Your task to perform on an android device: create a new album in the google photos Image 0: 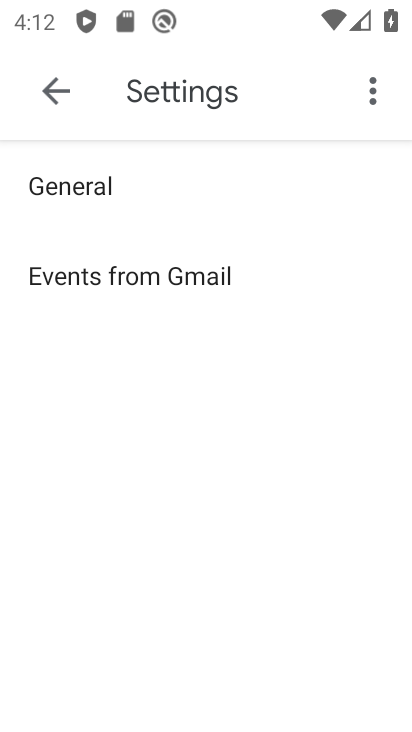
Step 0: press home button
Your task to perform on an android device: create a new album in the google photos Image 1: 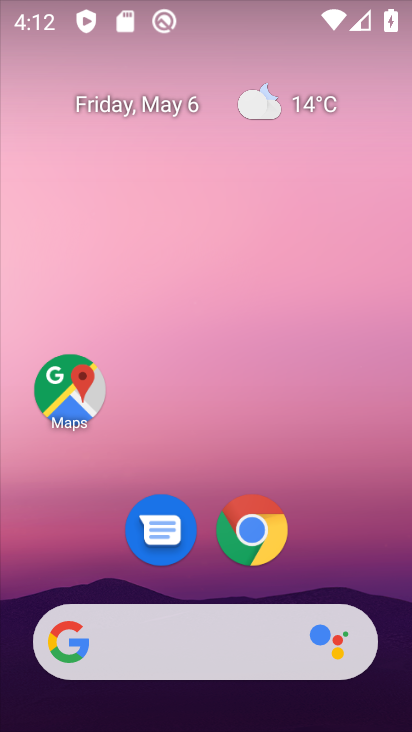
Step 1: drag from (345, 539) to (282, 223)
Your task to perform on an android device: create a new album in the google photos Image 2: 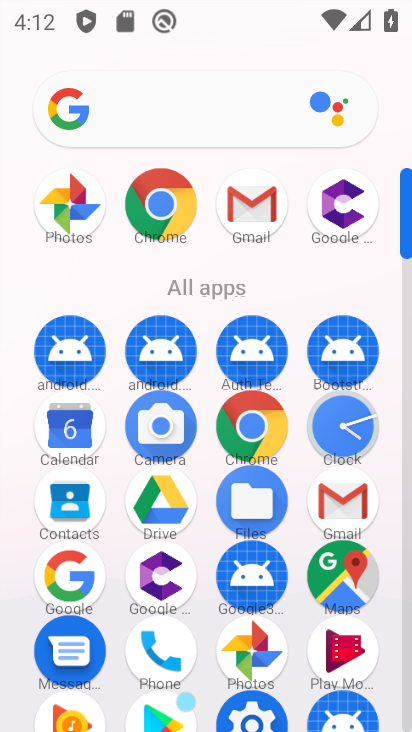
Step 2: click (55, 217)
Your task to perform on an android device: create a new album in the google photos Image 3: 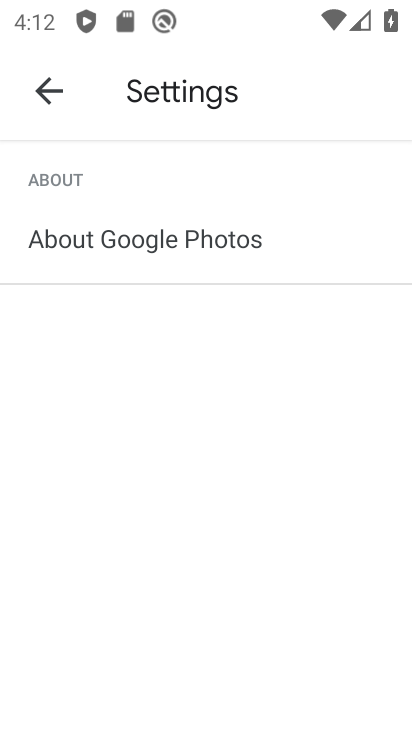
Step 3: click (68, 238)
Your task to perform on an android device: create a new album in the google photos Image 4: 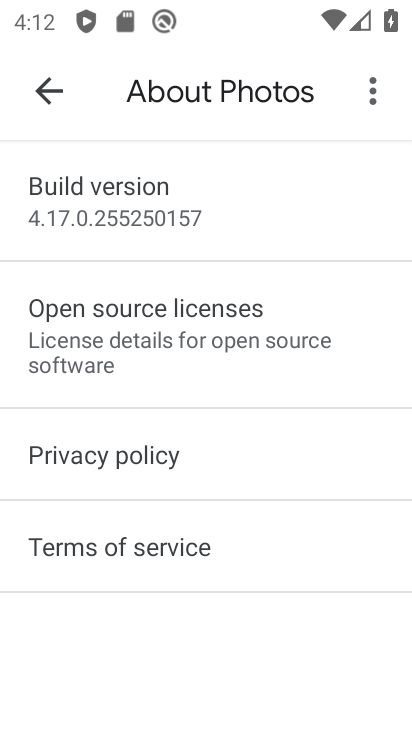
Step 4: click (48, 76)
Your task to perform on an android device: create a new album in the google photos Image 5: 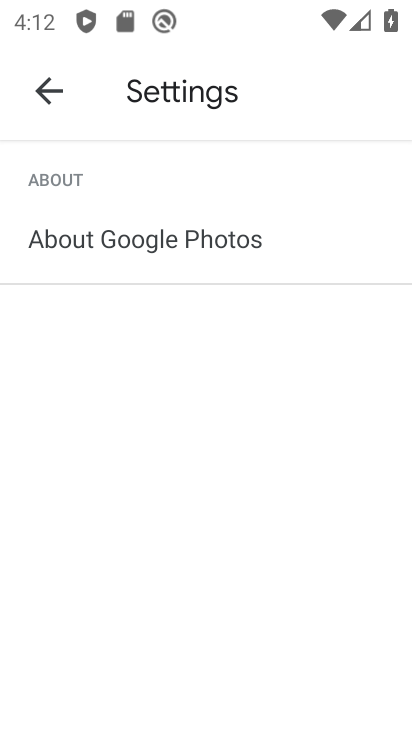
Step 5: click (52, 109)
Your task to perform on an android device: create a new album in the google photos Image 6: 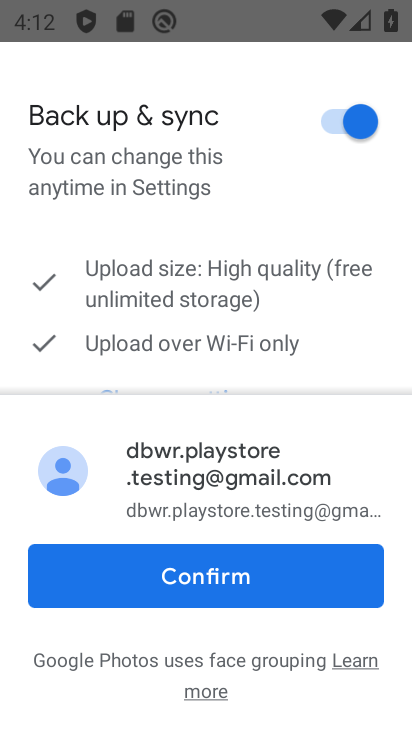
Step 6: click (198, 572)
Your task to perform on an android device: create a new album in the google photos Image 7: 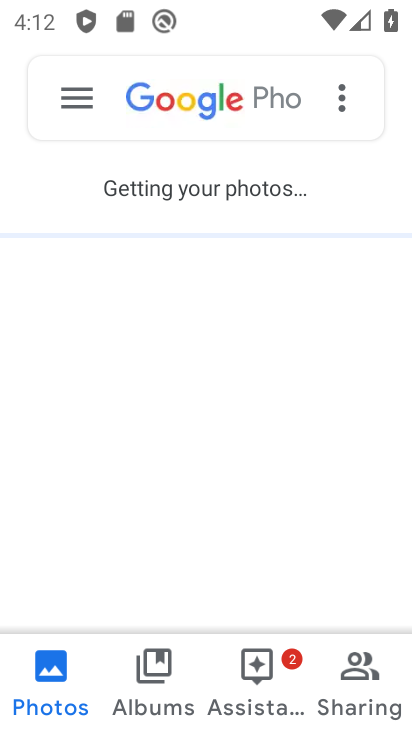
Step 7: click (192, 525)
Your task to perform on an android device: create a new album in the google photos Image 8: 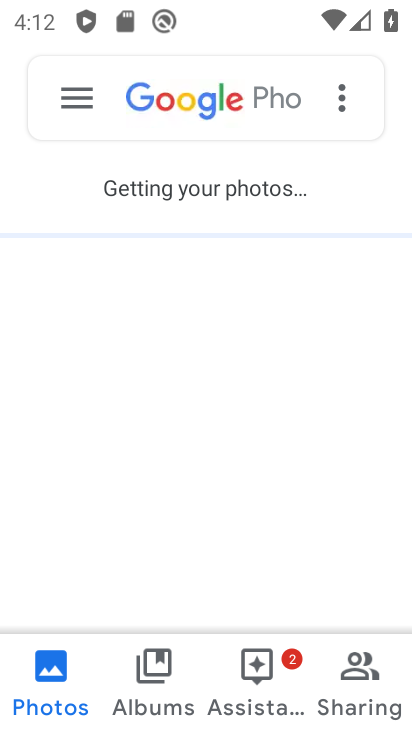
Step 8: drag from (223, 573) to (202, 195)
Your task to perform on an android device: create a new album in the google photos Image 9: 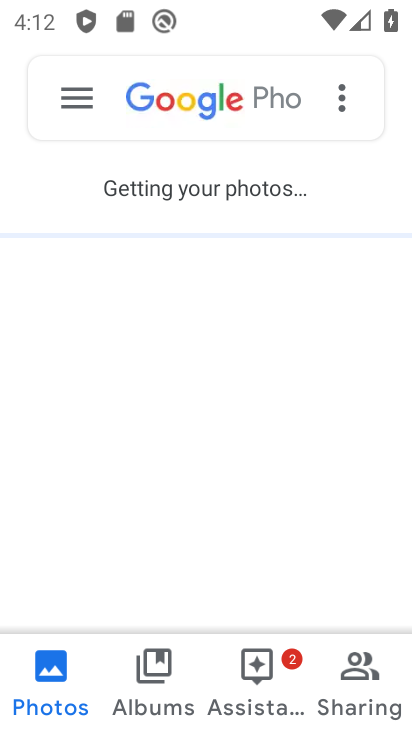
Step 9: click (177, 694)
Your task to perform on an android device: create a new album in the google photos Image 10: 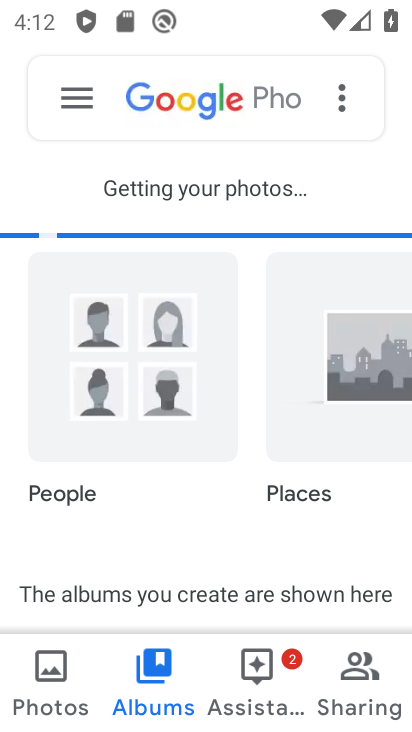
Step 10: drag from (234, 418) to (280, 175)
Your task to perform on an android device: create a new album in the google photos Image 11: 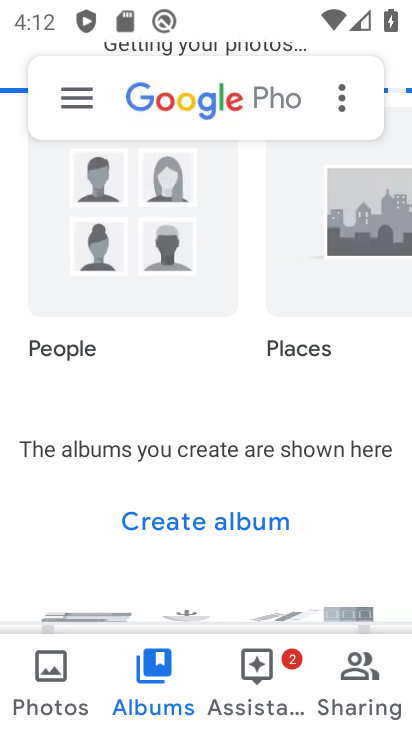
Step 11: click (196, 530)
Your task to perform on an android device: create a new album in the google photos Image 12: 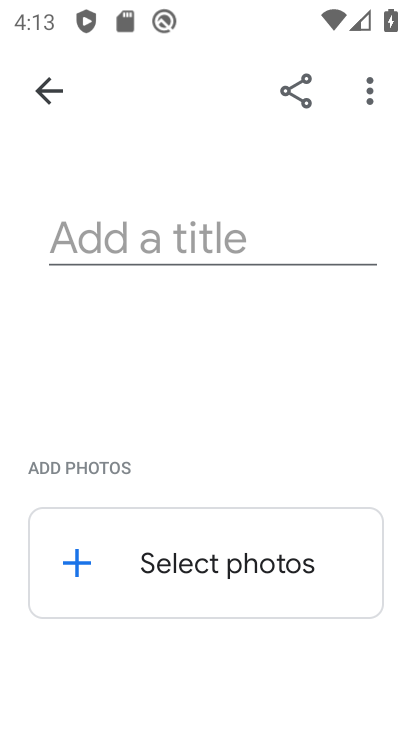
Step 12: click (223, 595)
Your task to perform on an android device: create a new album in the google photos Image 13: 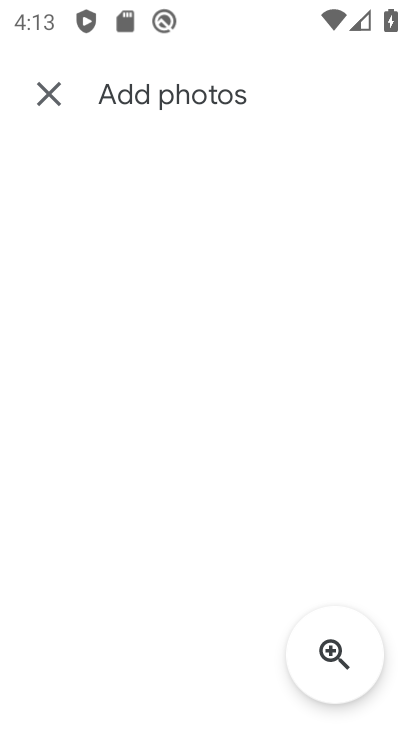
Step 13: click (52, 103)
Your task to perform on an android device: create a new album in the google photos Image 14: 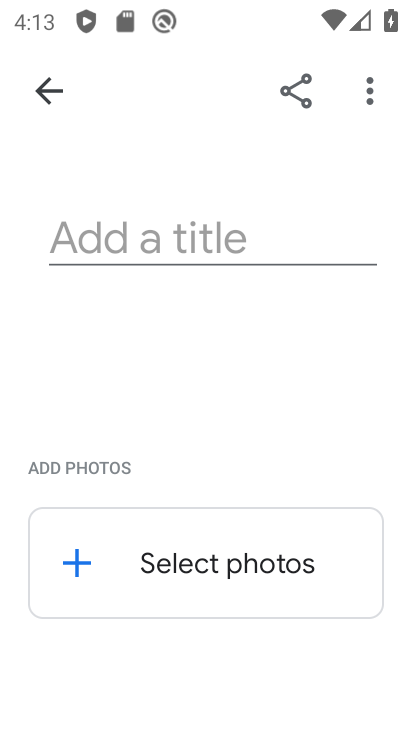
Step 14: click (86, 241)
Your task to perform on an android device: create a new album in the google photos Image 15: 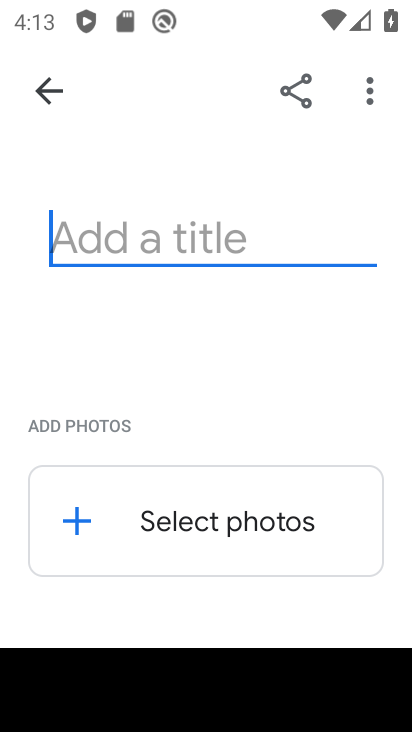
Step 15: type "somi"
Your task to perform on an android device: create a new album in the google photos Image 16: 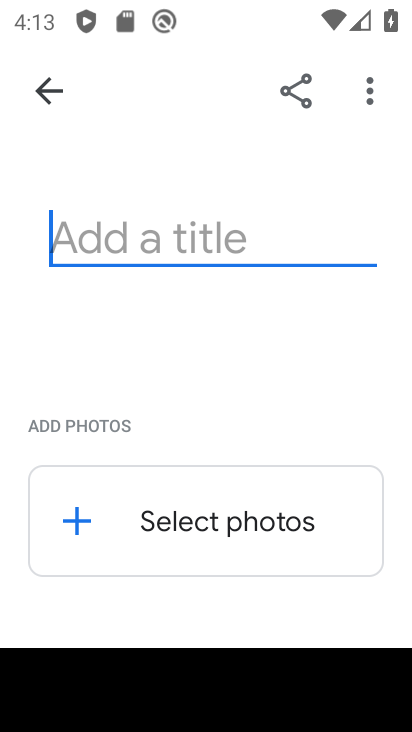
Step 16: click (240, 522)
Your task to perform on an android device: create a new album in the google photos Image 17: 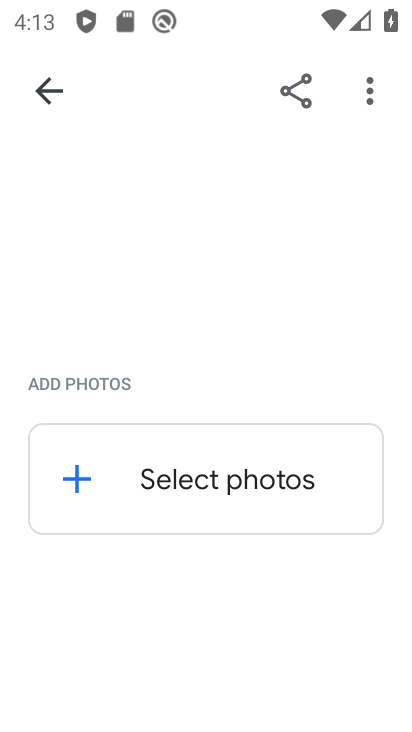
Step 17: click (220, 496)
Your task to perform on an android device: create a new album in the google photos Image 18: 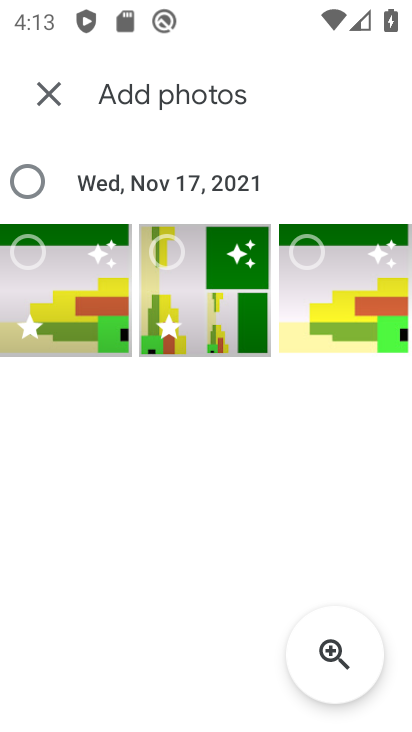
Step 18: click (45, 254)
Your task to perform on an android device: create a new album in the google photos Image 19: 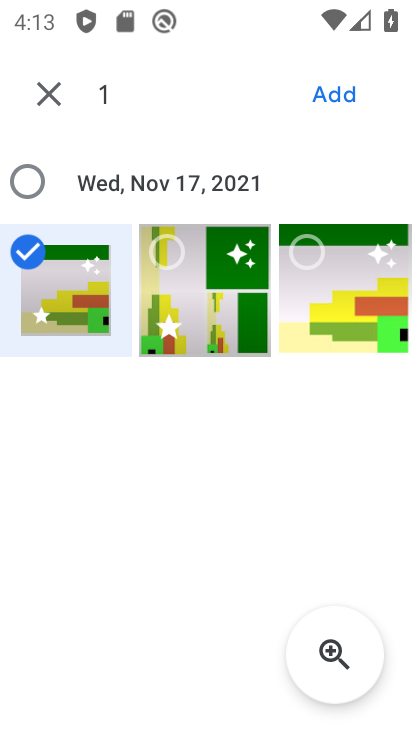
Step 19: click (154, 277)
Your task to perform on an android device: create a new album in the google photos Image 20: 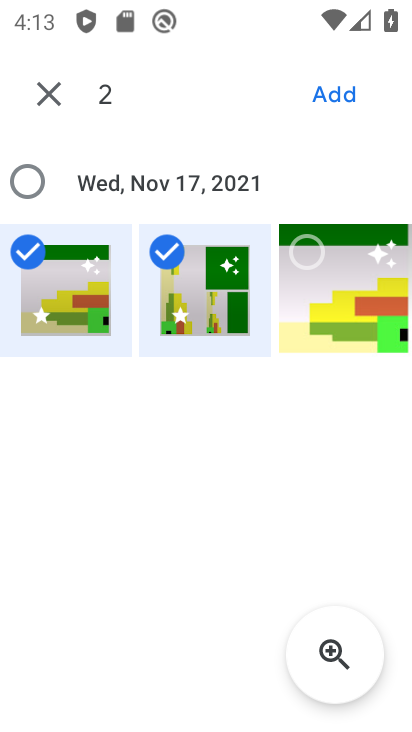
Step 20: click (314, 256)
Your task to perform on an android device: create a new album in the google photos Image 21: 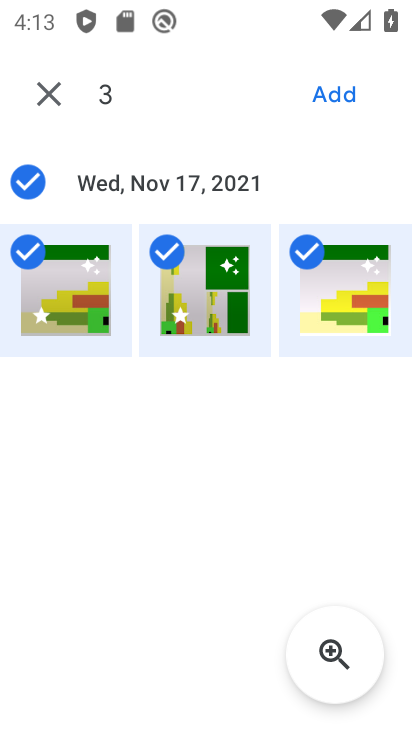
Step 21: click (331, 89)
Your task to perform on an android device: create a new album in the google photos Image 22: 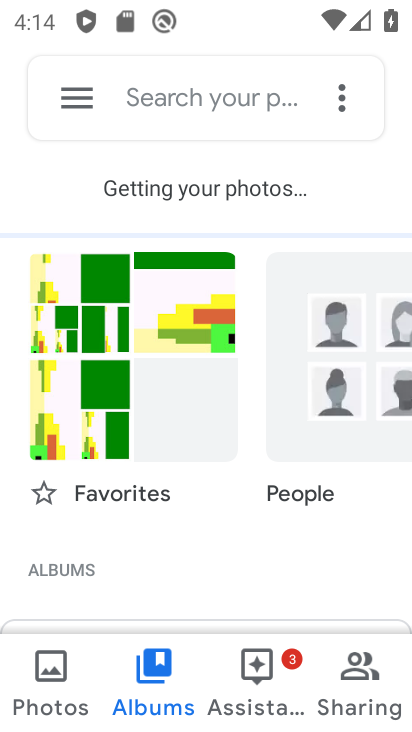
Step 22: task complete